Your task to perform on an android device: toggle wifi Image 0: 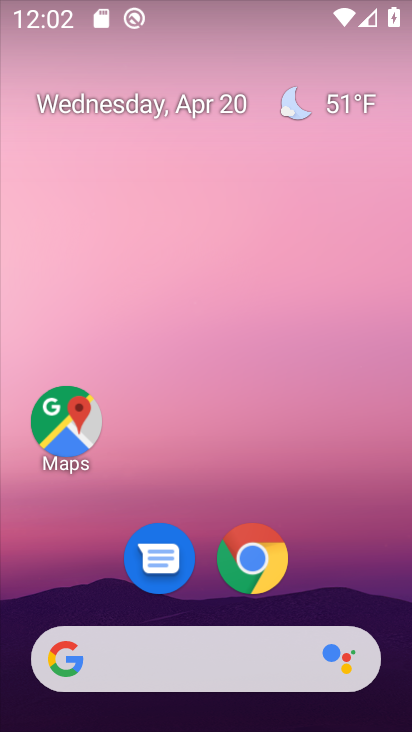
Step 0: drag from (393, 634) to (305, 152)
Your task to perform on an android device: toggle wifi Image 1: 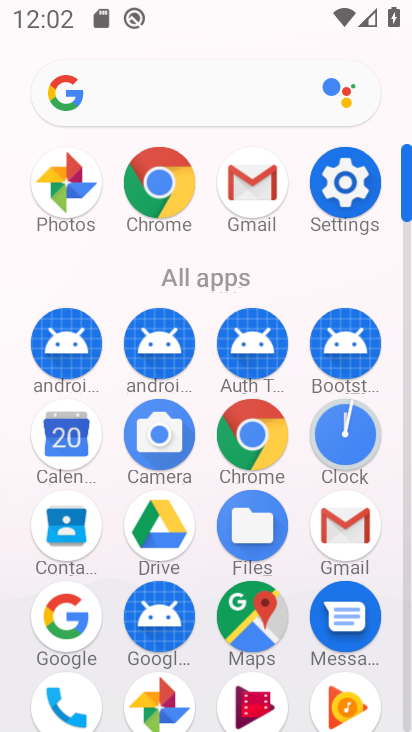
Step 1: click (408, 701)
Your task to perform on an android device: toggle wifi Image 2: 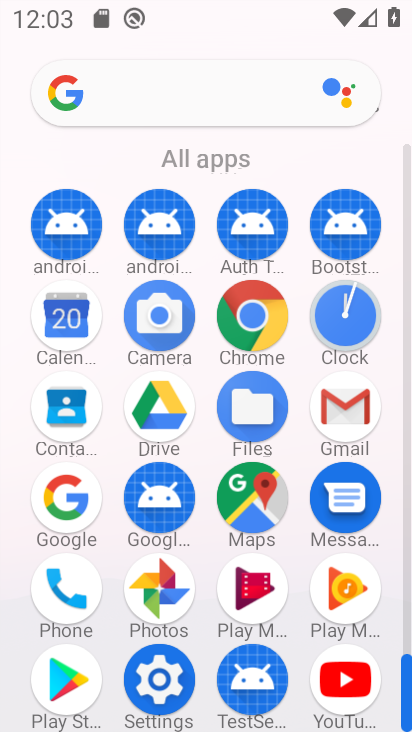
Step 2: click (159, 679)
Your task to perform on an android device: toggle wifi Image 3: 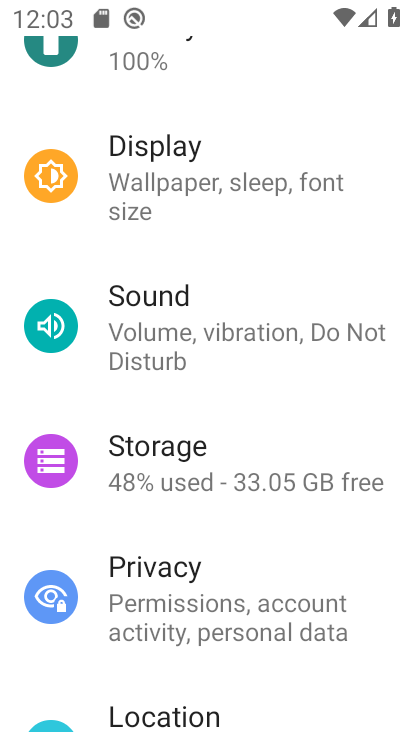
Step 3: drag from (321, 291) to (310, 528)
Your task to perform on an android device: toggle wifi Image 4: 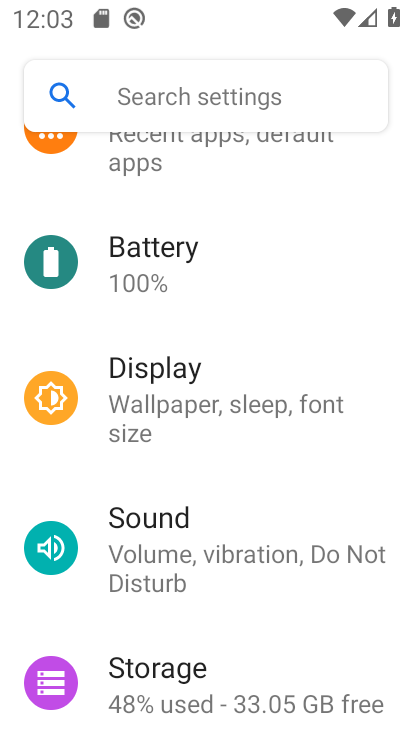
Step 4: drag from (312, 229) to (304, 463)
Your task to perform on an android device: toggle wifi Image 5: 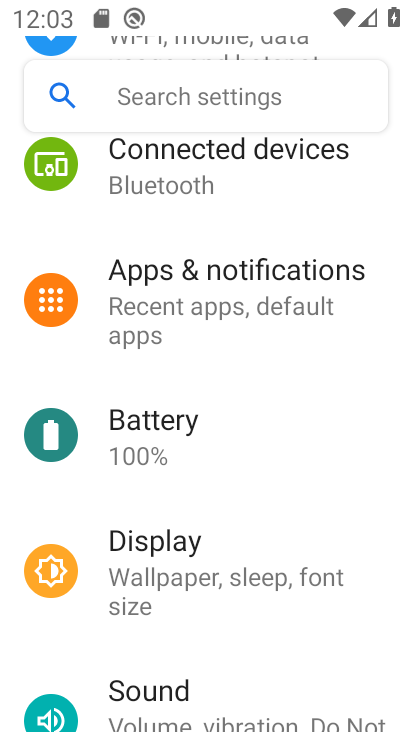
Step 5: drag from (346, 216) to (297, 458)
Your task to perform on an android device: toggle wifi Image 6: 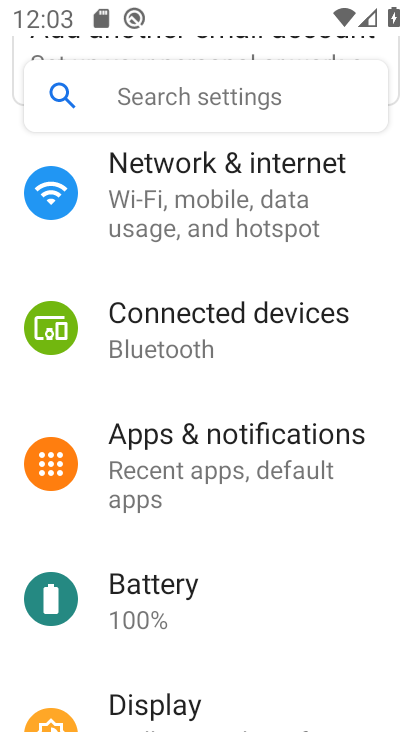
Step 6: click (167, 199)
Your task to perform on an android device: toggle wifi Image 7: 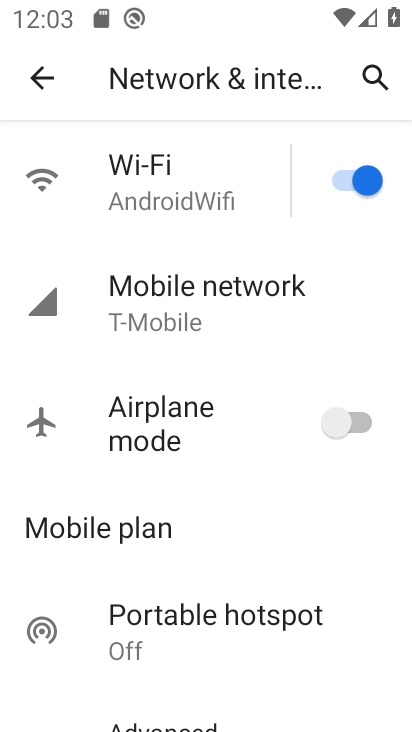
Step 7: click (334, 178)
Your task to perform on an android device: toggle wifi Image 8: 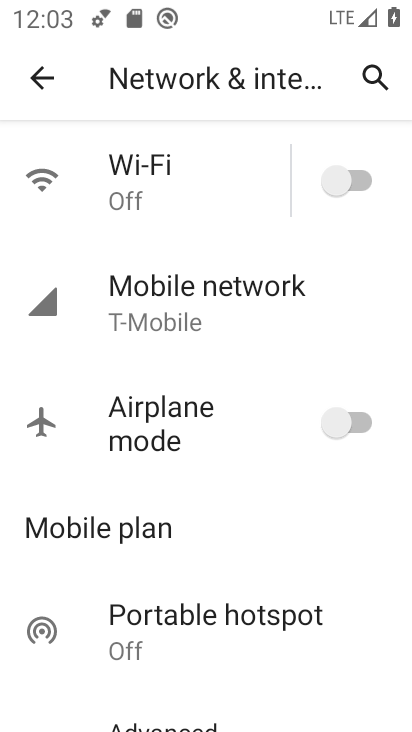
Step 8: task complete